Your task to perform on an android device: uninstall "Roku - Official Remote Control" Image 0: 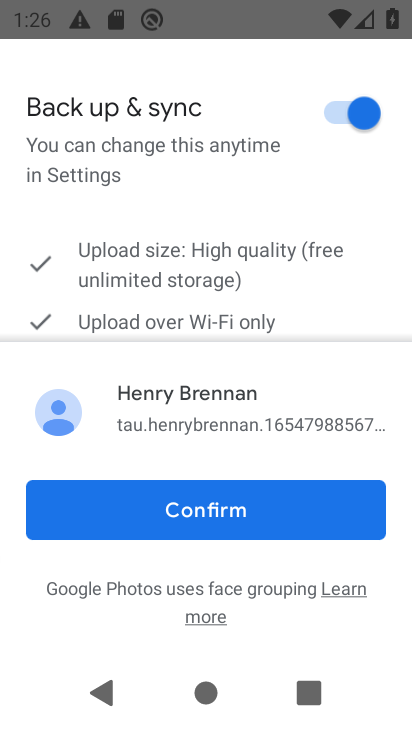
Step 0: press home button
Your task to perform on an android device: uninstall "Roku - Official Remote Control" Image 1: 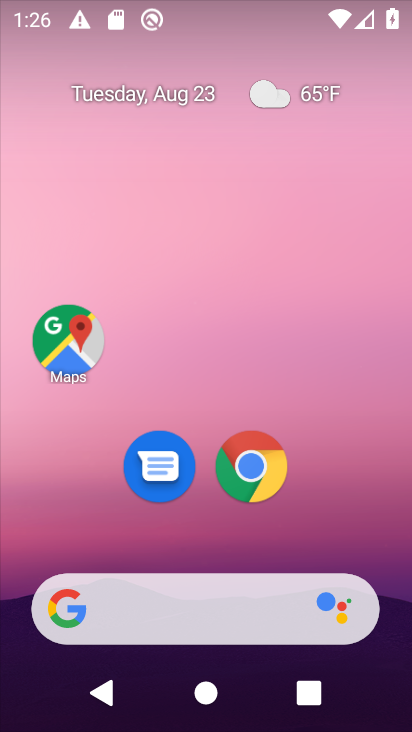
Step 1: drag from (215, 562) to (234, 231)
Your task to perform on an android device: uninstall "Roku - Official Remote Control" Image 2: 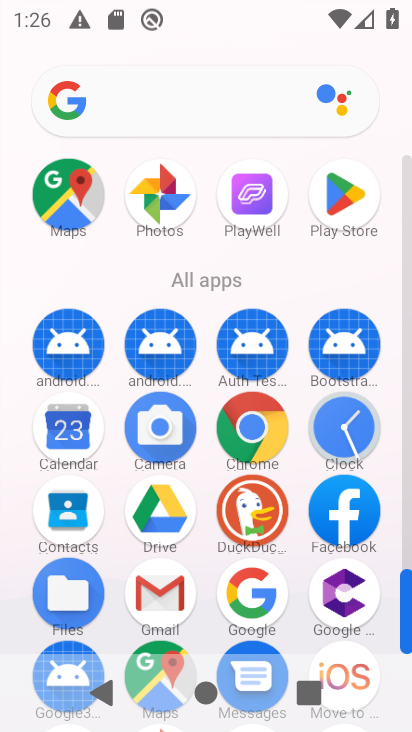
Step 2: click (346, 193)
Your task to perform on an android device: uninstall "Roku - Official Remote Control" Image 3: 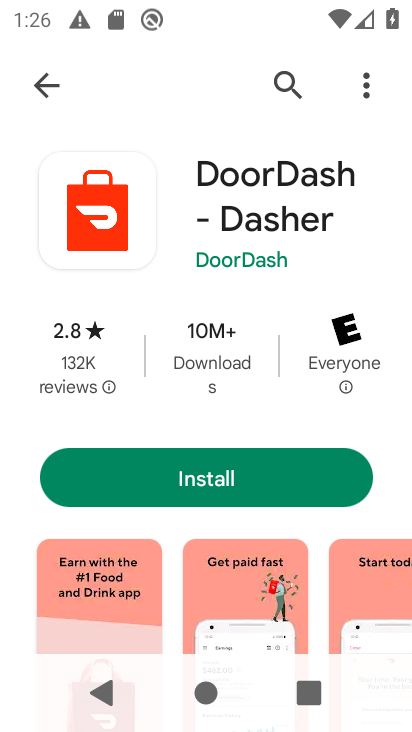
Step 3: click (73, 86)
Your task to perform on an android device: uninstall "Roku - Official Remote Control" Image 4: 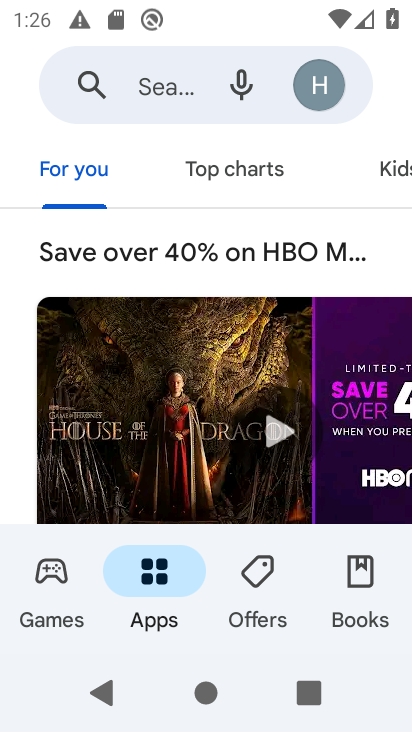
Step 4: click (162, 70)
Your task to perform on an android device: uninstall "Roku - Official Remote Control" Image 5: 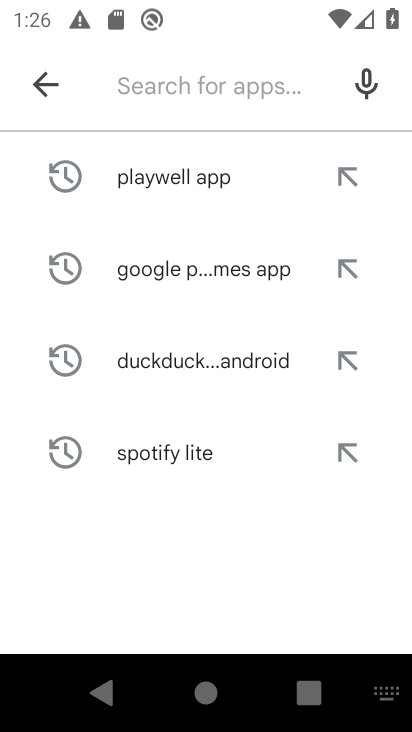
Step 5: type "roku "
Your task to perform on an android device: uninstall "Roku - Official Remote Control" Image 6: 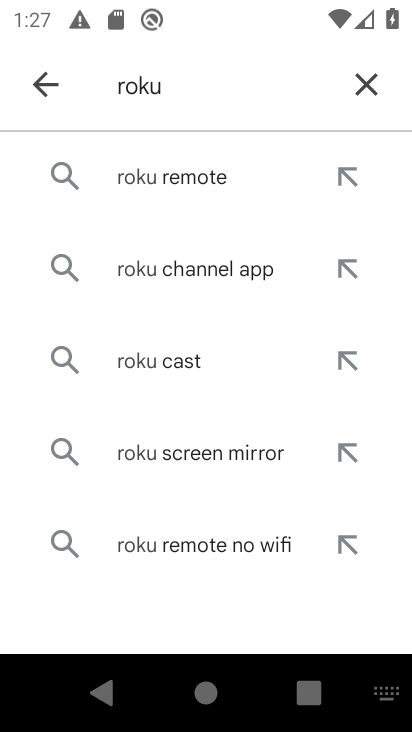
Step 6: click (188, 190)
Your task to perform on an android device: uninstall "Roku - Official Remote Control" Image 7: 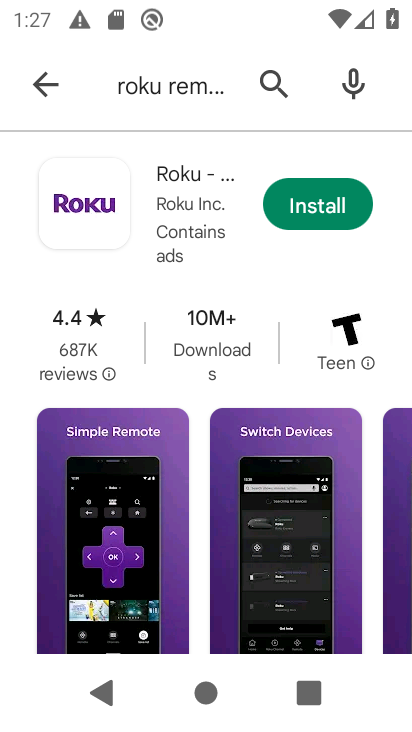
Step 7: task complete